Your task to perform on an android device: View the shopping cart on walmart. Add "logitech g502" to the cart on walmart, then select checkout. Image 0: 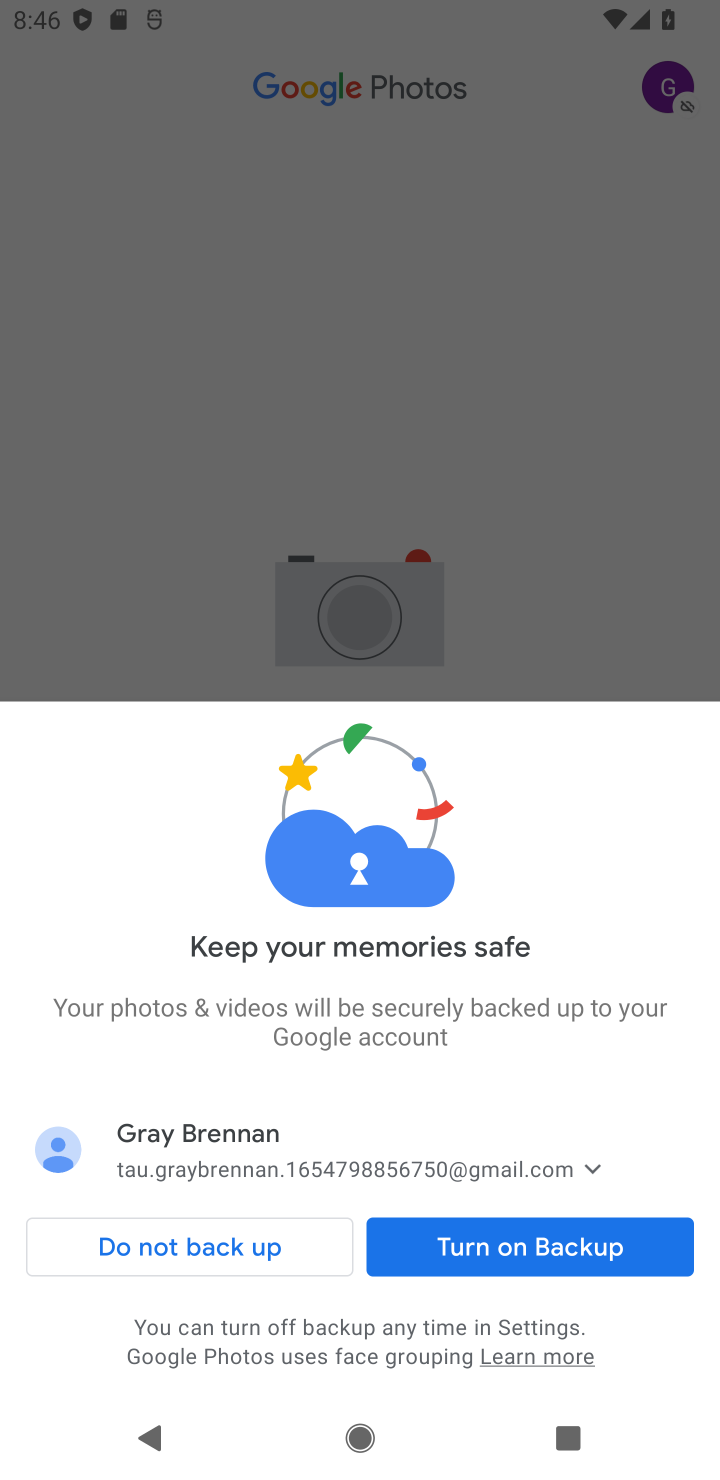
Step 0: press home button
Your task to perform on an android device: View the shopping cart on walmart. Add "logitech g502" to the cart on walmart, then select checkout. Image 1: 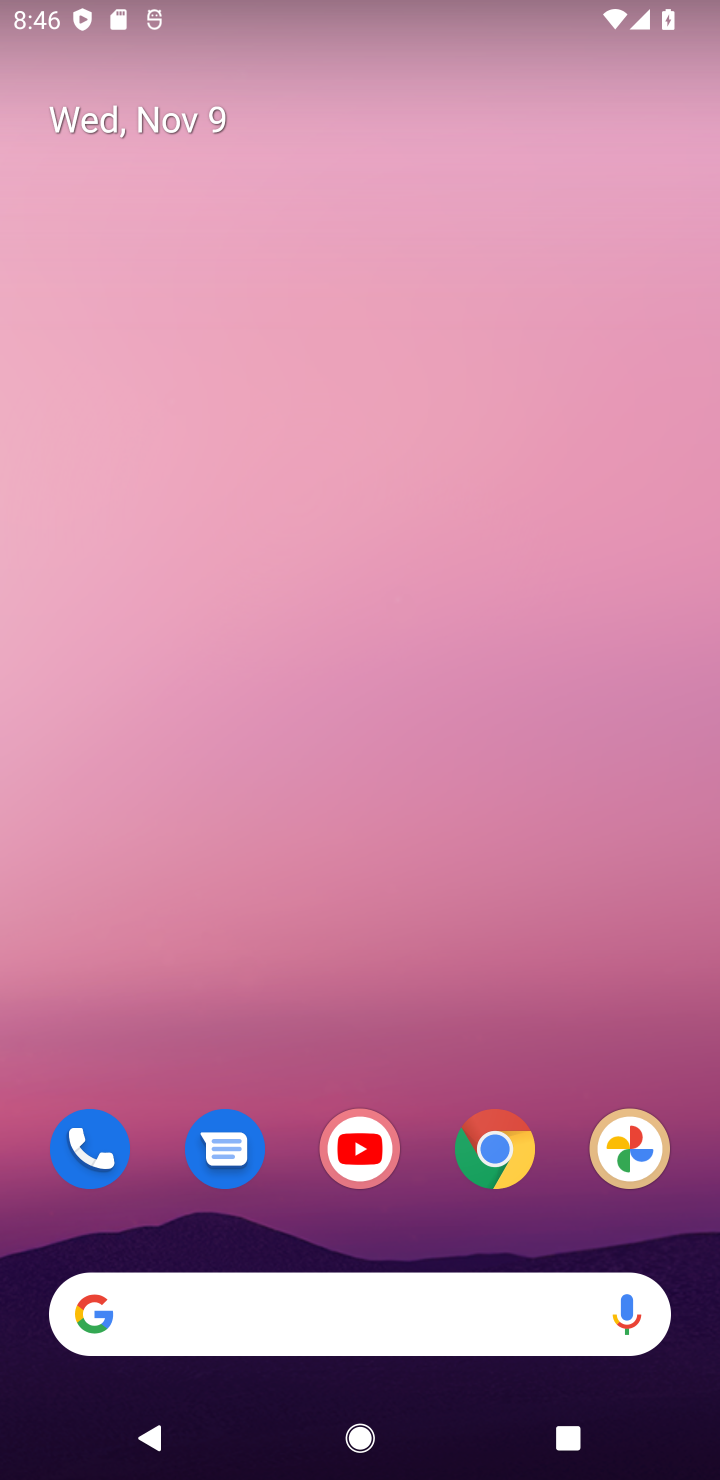
Step 1: click (490, 1163)
Your task to perform on an android device: View the shopping cart on walmart. Add "logitech g502" to the cart on walmart, then select checkout. Image 2: 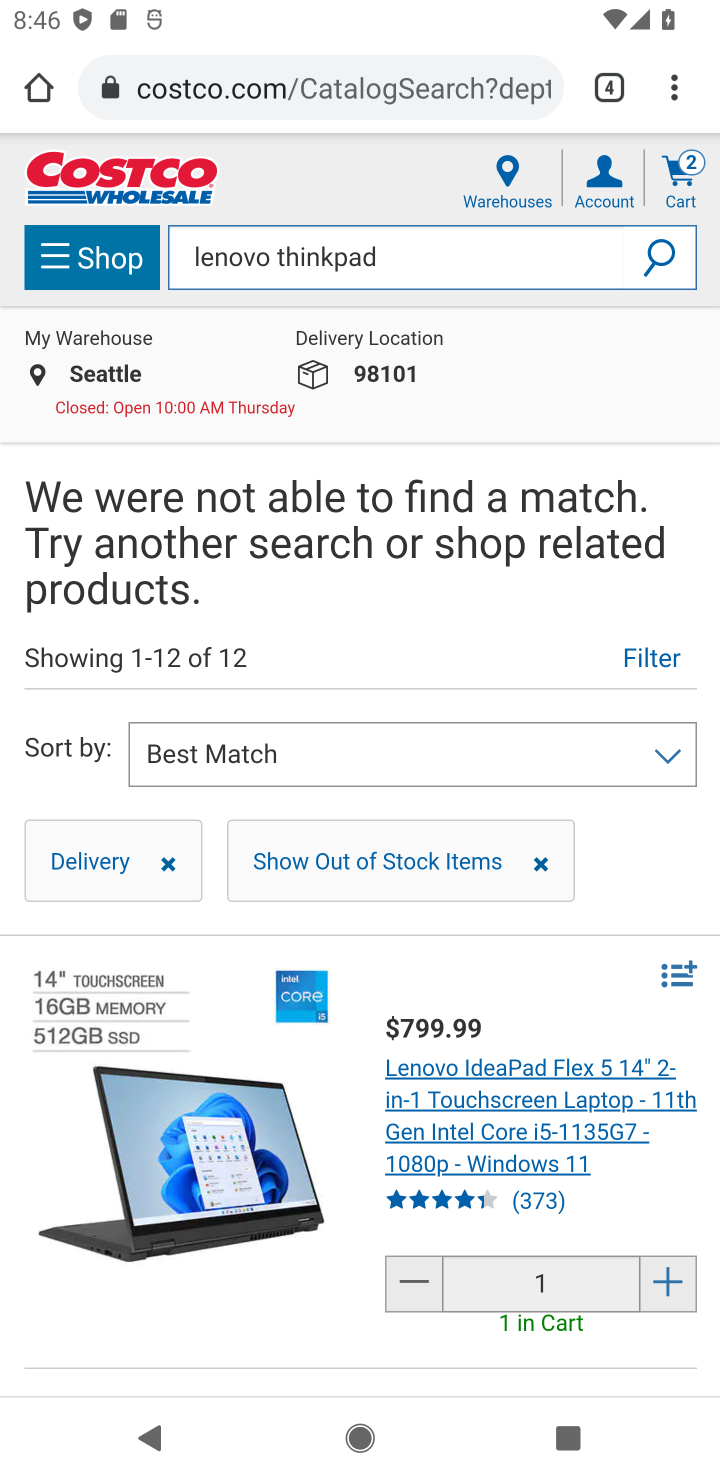
Step 2: click (619, 87)
Your task to perform on an android device: View the shopping cart on walmart. Add "logitech g502" to the cart on walmart, then select checkout. Image 3: 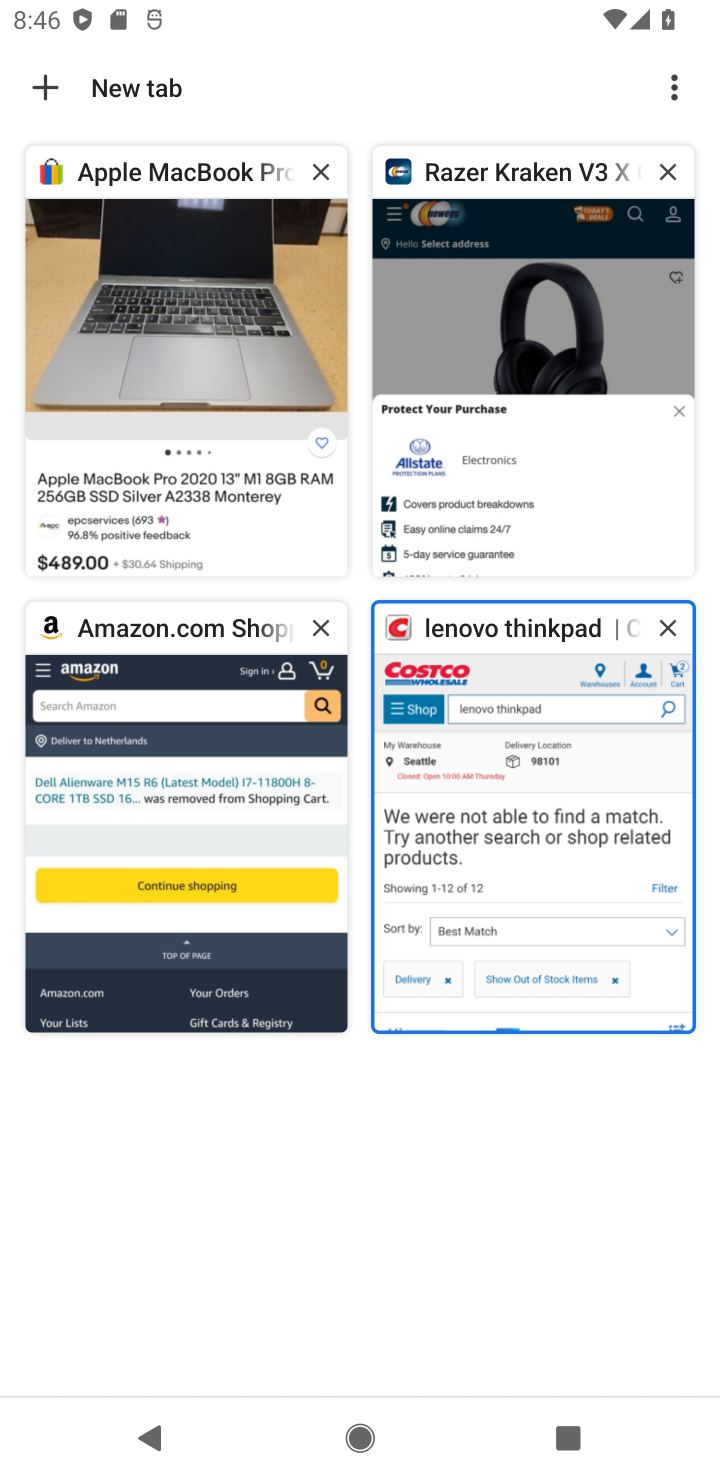
Step 3: click (37, 84)
Your task to perform on an android device: View the shopping cart on walmart. Add "logitech g502" to the cart on walmart, then select checkout. Image 4: 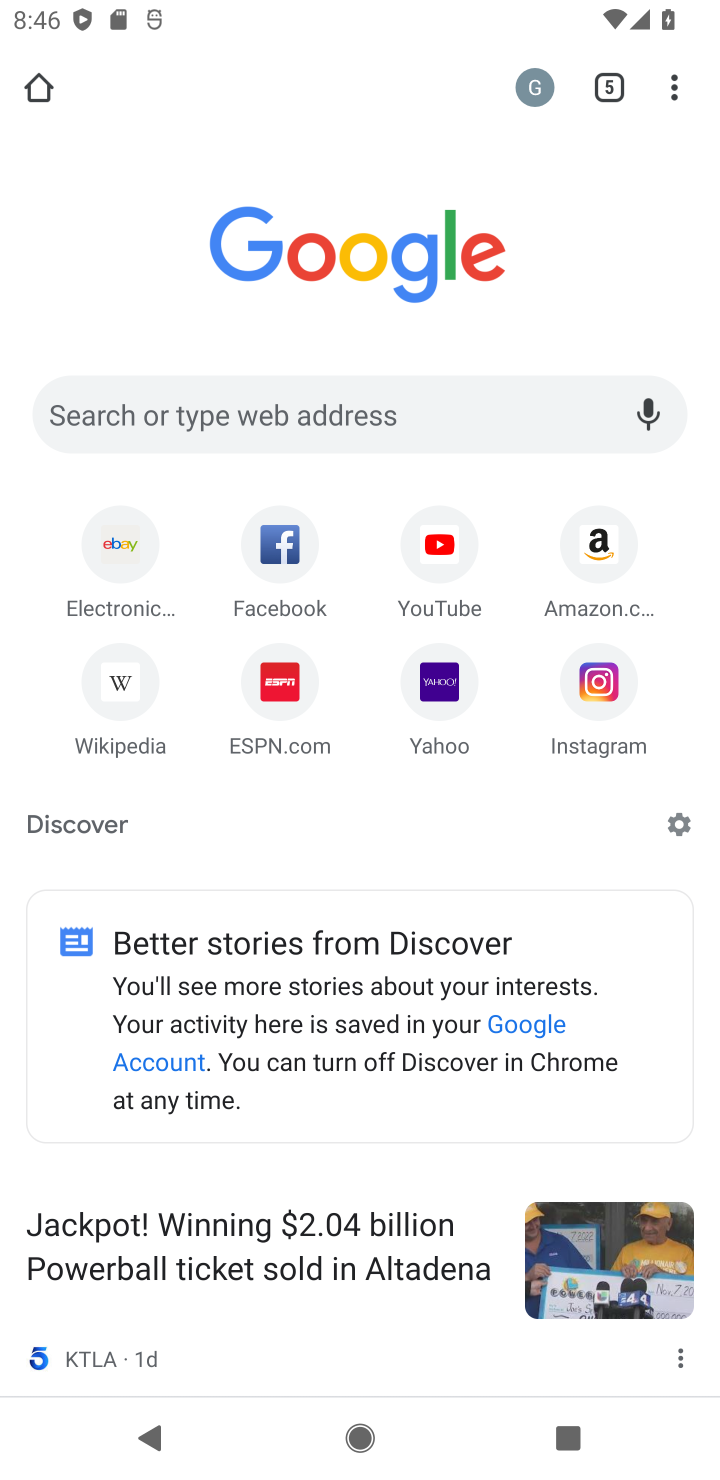
Step 4: click (286, 390)
Your task to perform on an android device: View the shopping cart on walmart. Add "logitech g502" to the cart on walmart, then select checkout. Image 5: 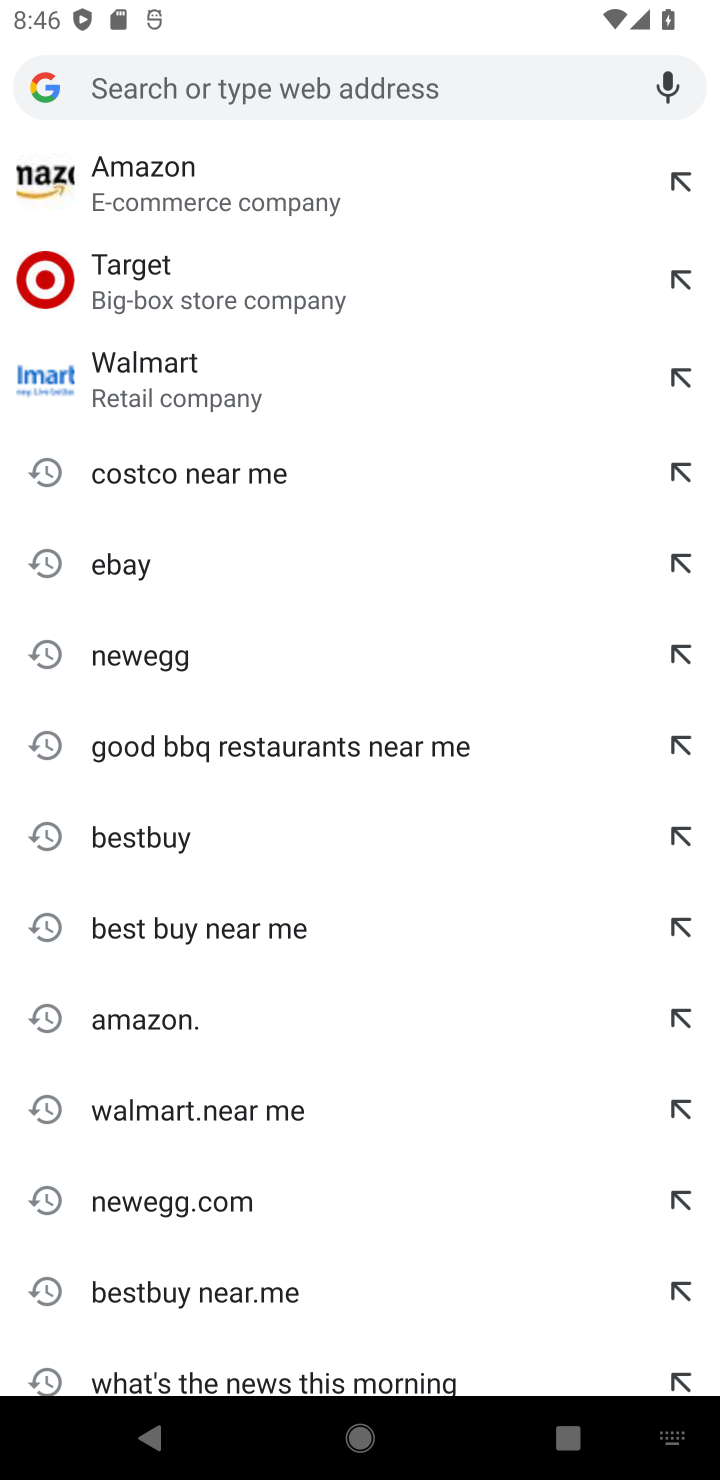
Step 5: click (182, 390)
Your task to perform on an android device: View the shopping cart on walmart. Add "logitech g502" to the cart on walmart, then select checkout. Image 6: 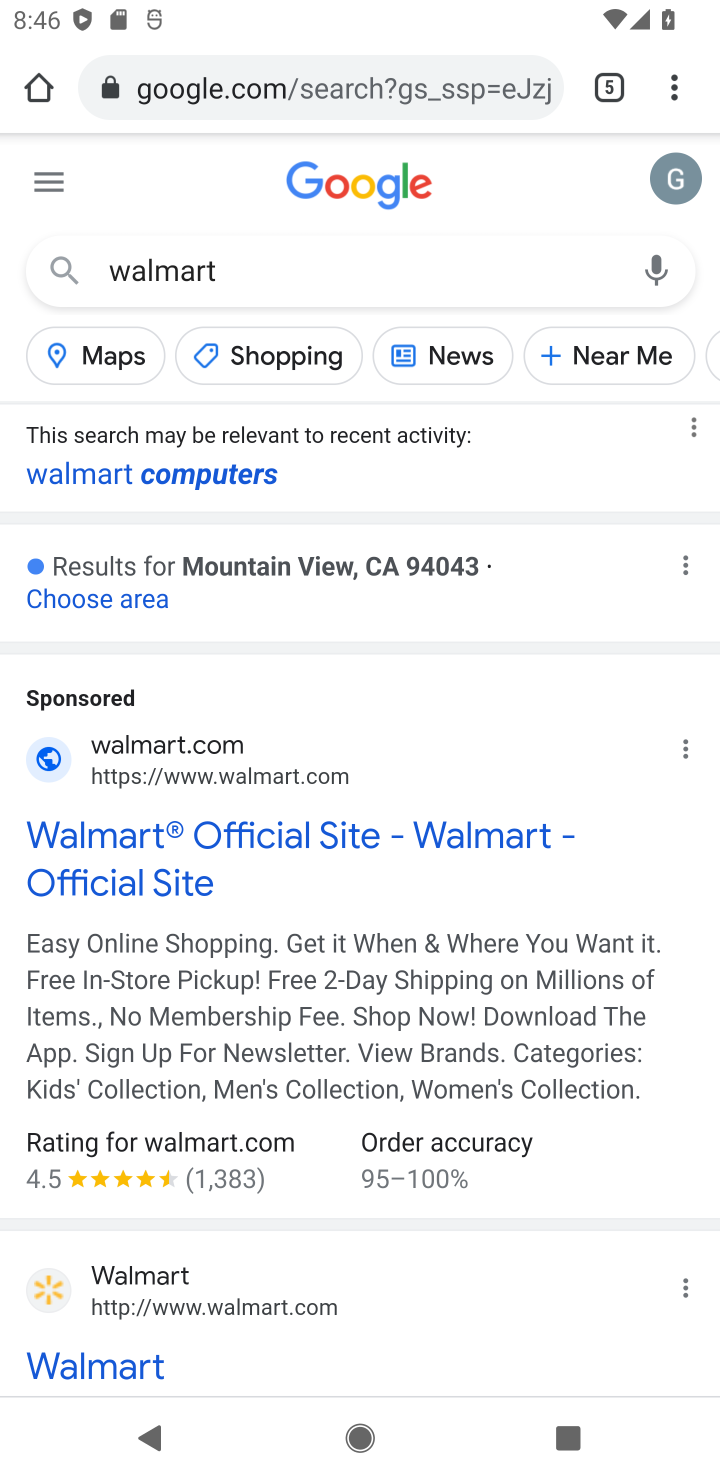
Step 6: click (51, 1362)
Your task to perform on an android device: View the shopping cart on walmart. Add "logitech g502" to the cart on walmart, then select checkout. Image 7: 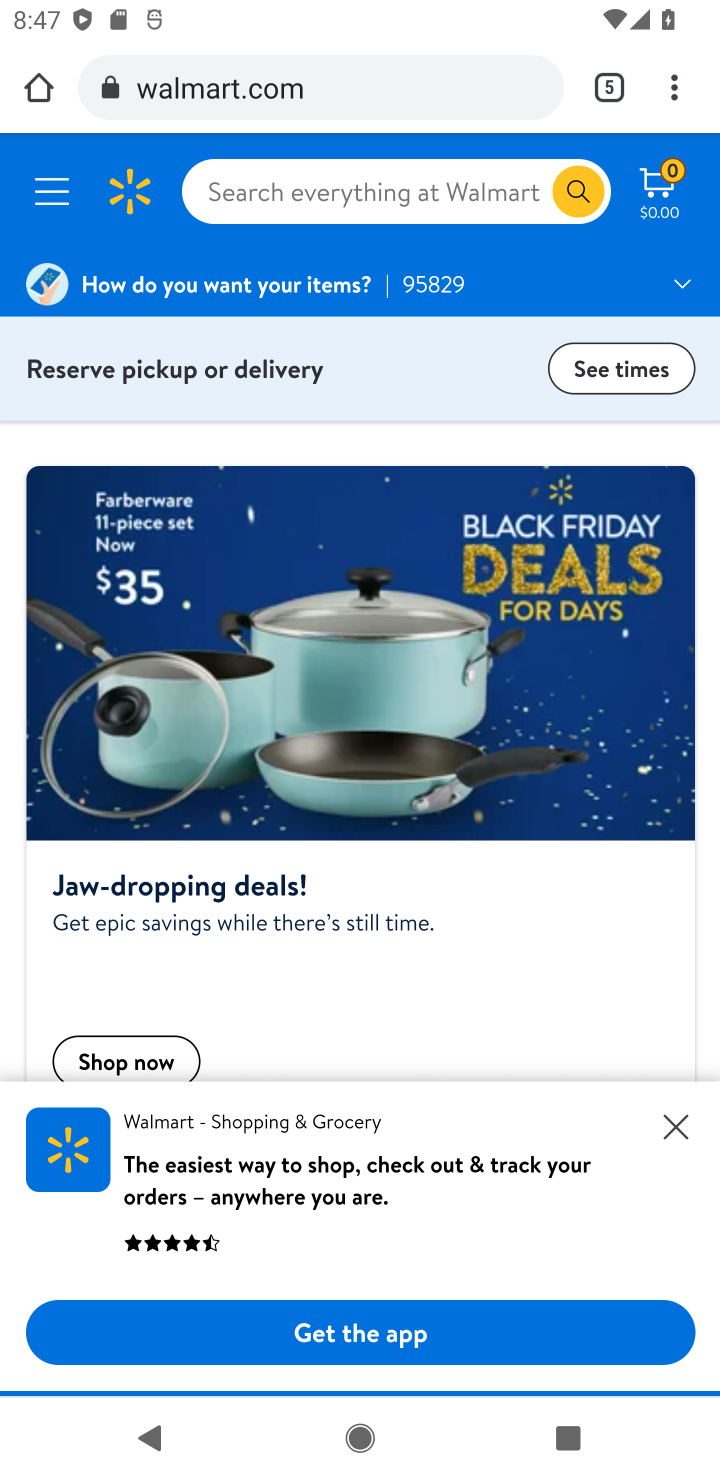
Step 7: click (401, 211)
Your task to perform on an android device: View the shopping cart on walmart. Add "logitech g502" to the cart on walmart, then select checkout. Image 8: 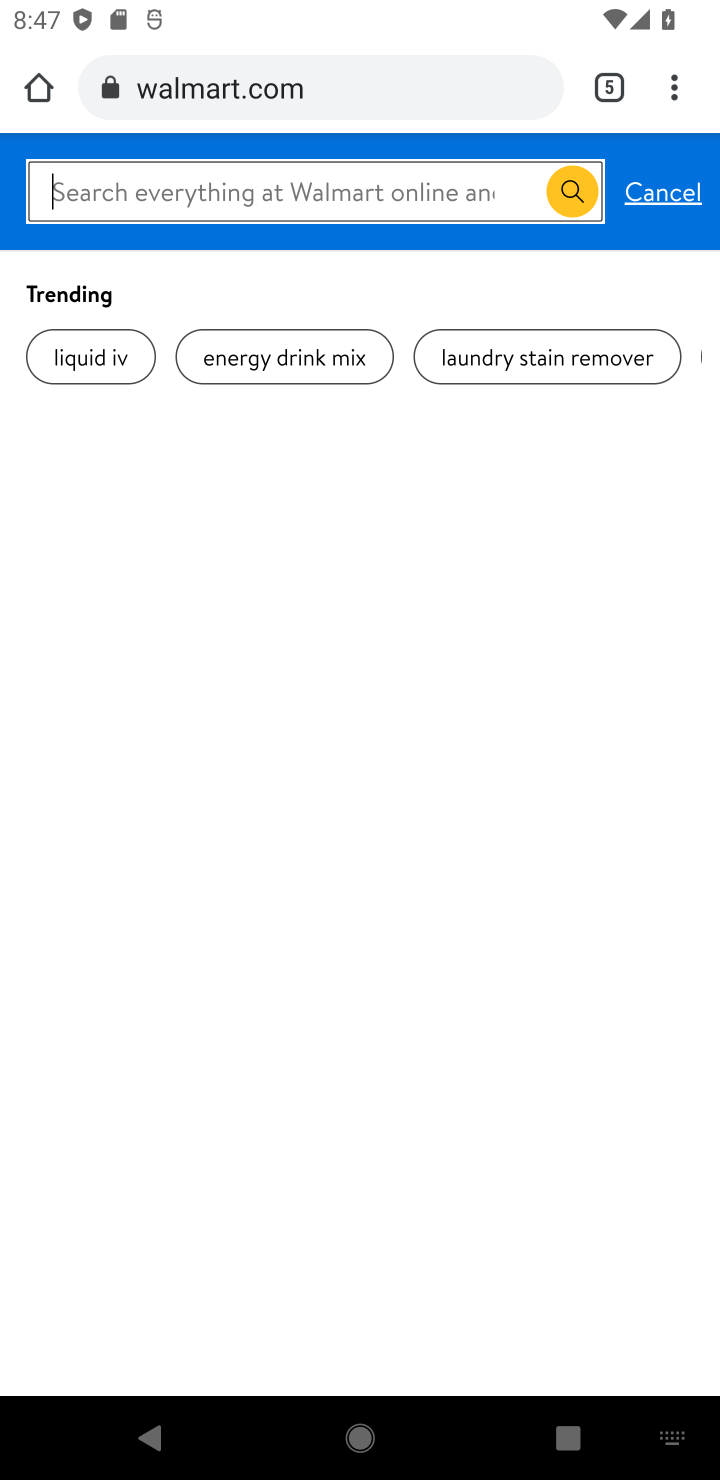
Step 8: type "logitech g502"
Your task to perform on an android device: View the shopping cart on walmart. Add "logitech g502" to the cart on walmart, then select checkout. Image 9: 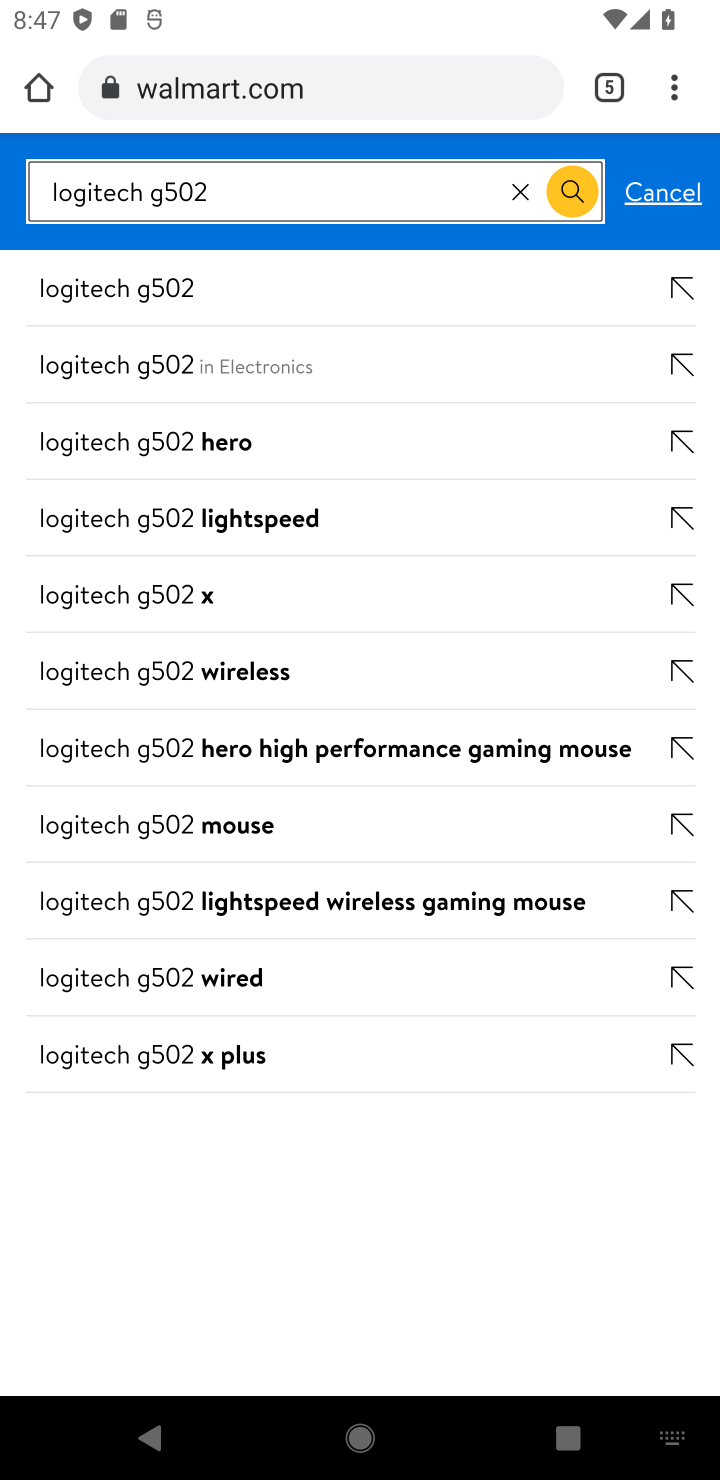
Step 9: click (128, 369)
Your task to perform on an android device: View the shopping cart on walmart. Add "logitech g502" to the cart on walmart, then select checkout. Image 10: 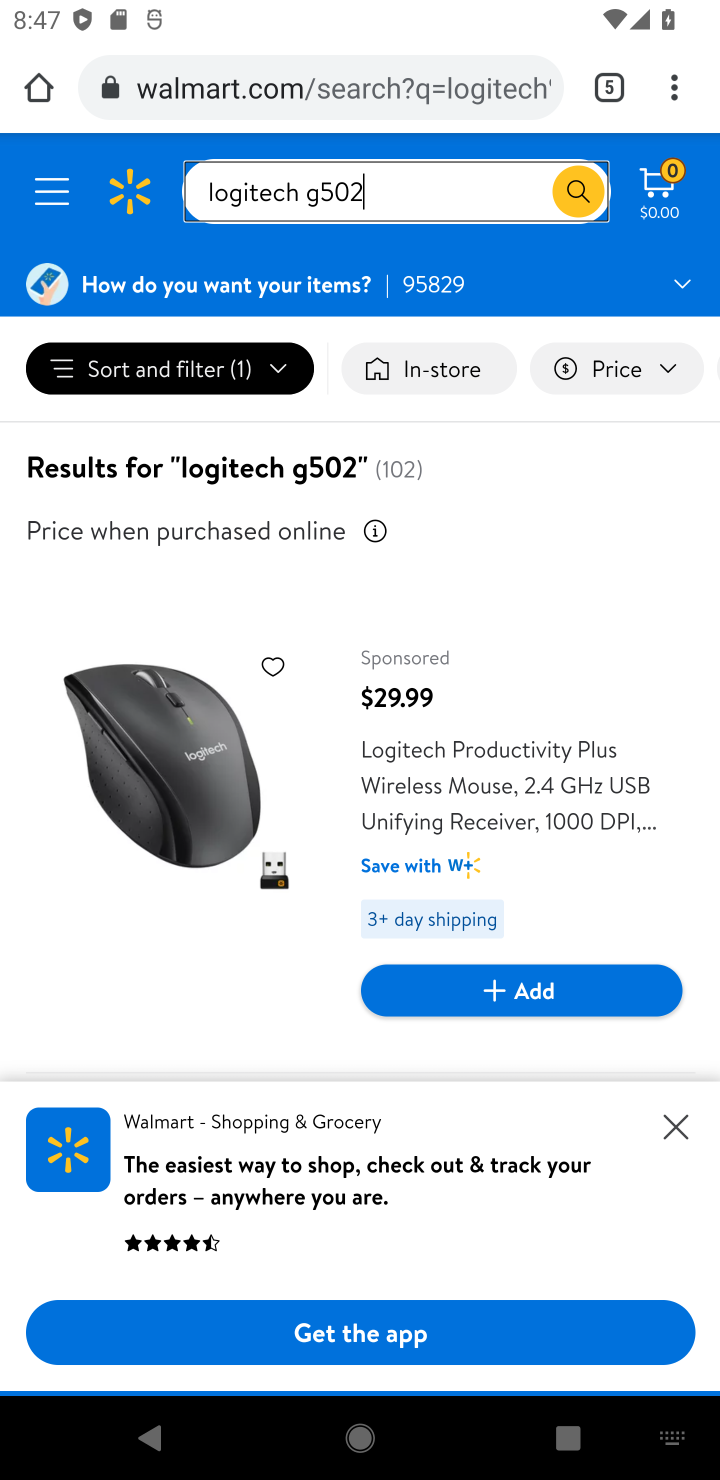
Step 10: click (688, 1118)
Your task to perform on an android device: View the shopping cart on walmart. Add "logitech g502" to the cart on walmart, then select checkout. Image 11: 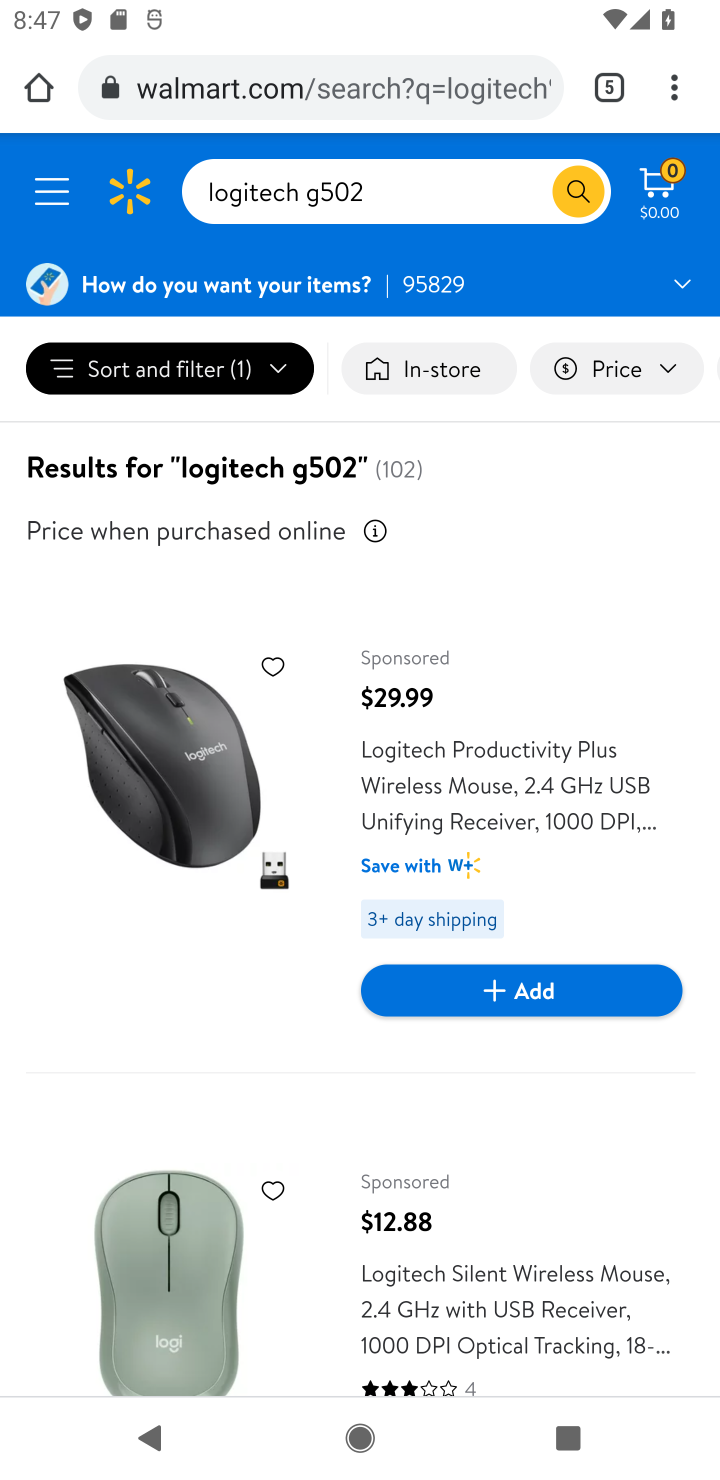
Step 11: drag from (588, 1173) to (514, 570)
Your task to perform on an android device: View the shopping cart on walmart. Add "logitech g502" to the cart on walmart, then select checkout. Image 12: 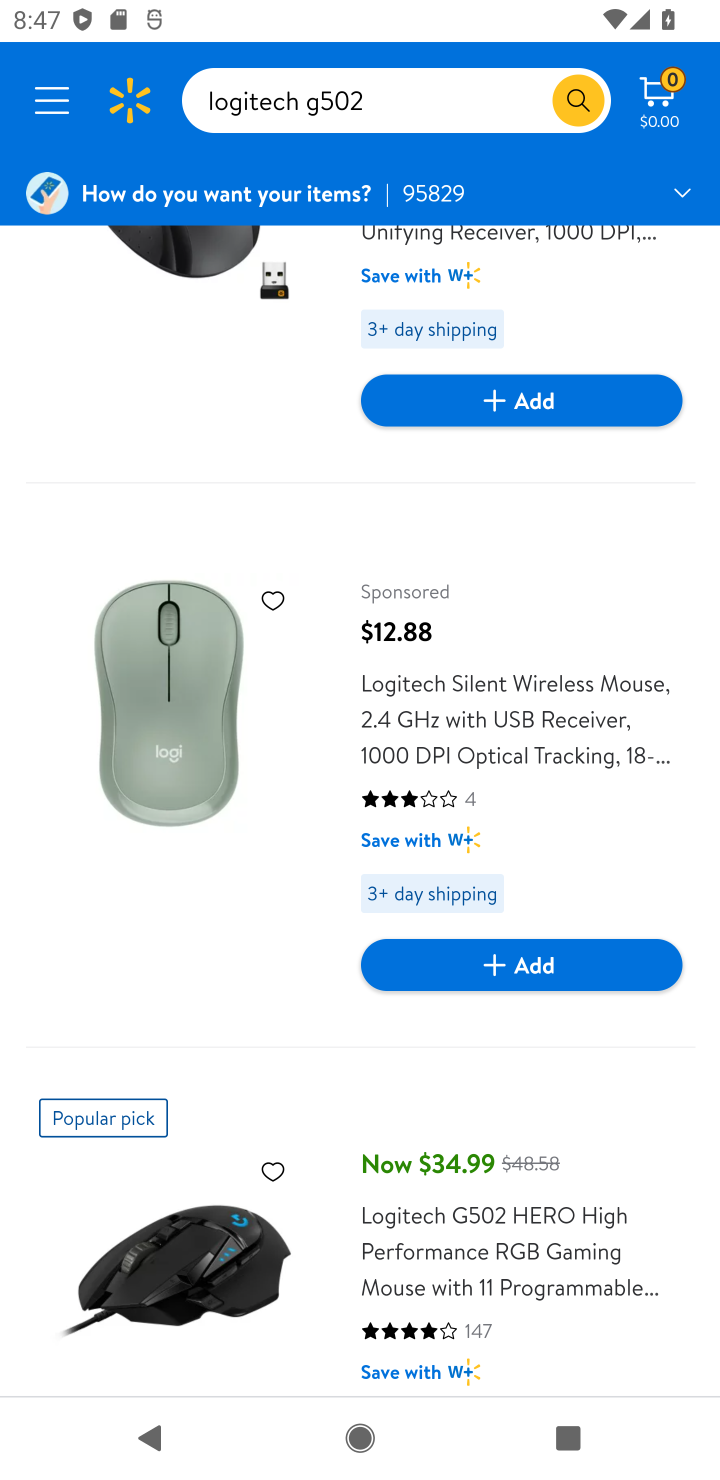
Step 12: drag from (590, 1134) to (494, 593)
Your task to perform on an android device: View the shopping cart on walmart. Add "logitech g502" to the cart on walmart, then select checkout. Image 13: 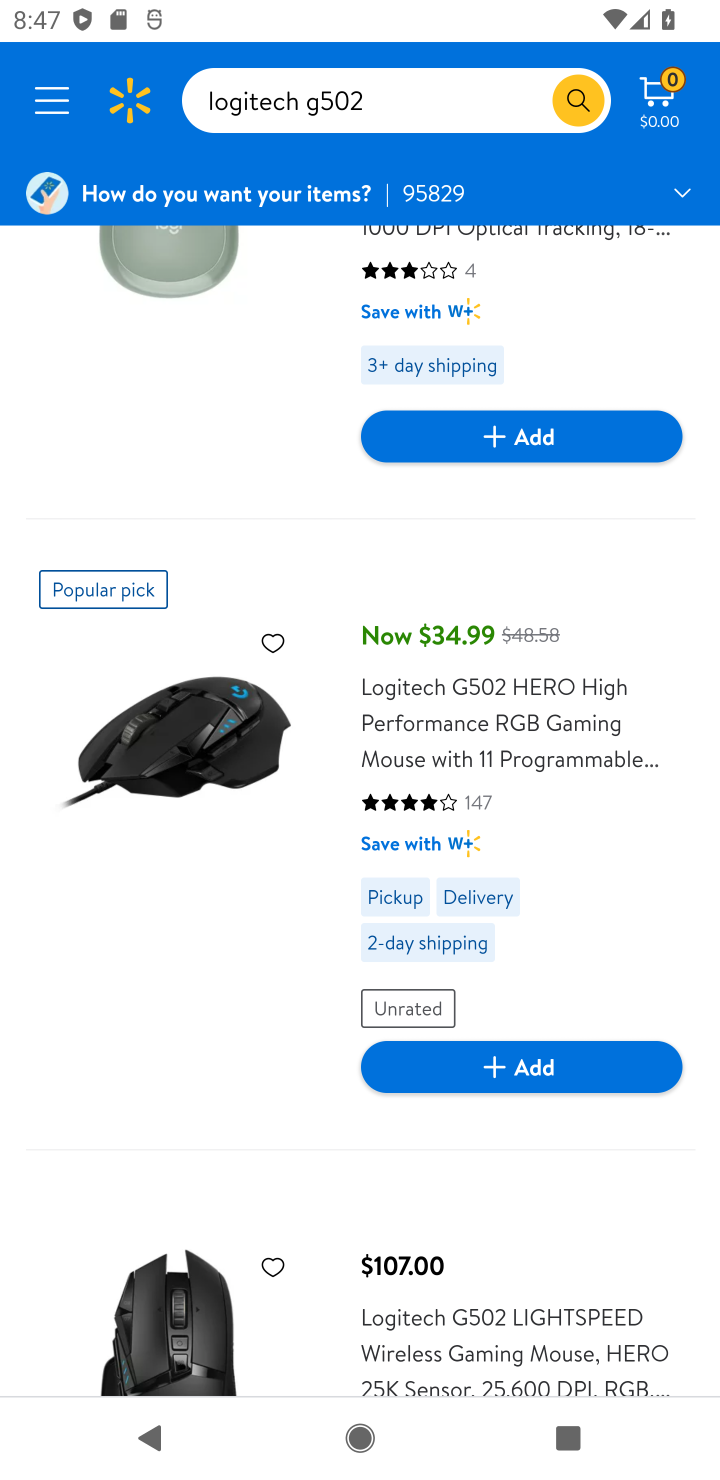
Step 13: click (565, 1068)
Your task to perform on an android device: View the shopping cart on walmart. Add "logitech g502" to the cart on walmart, then select checkout. Image 14: 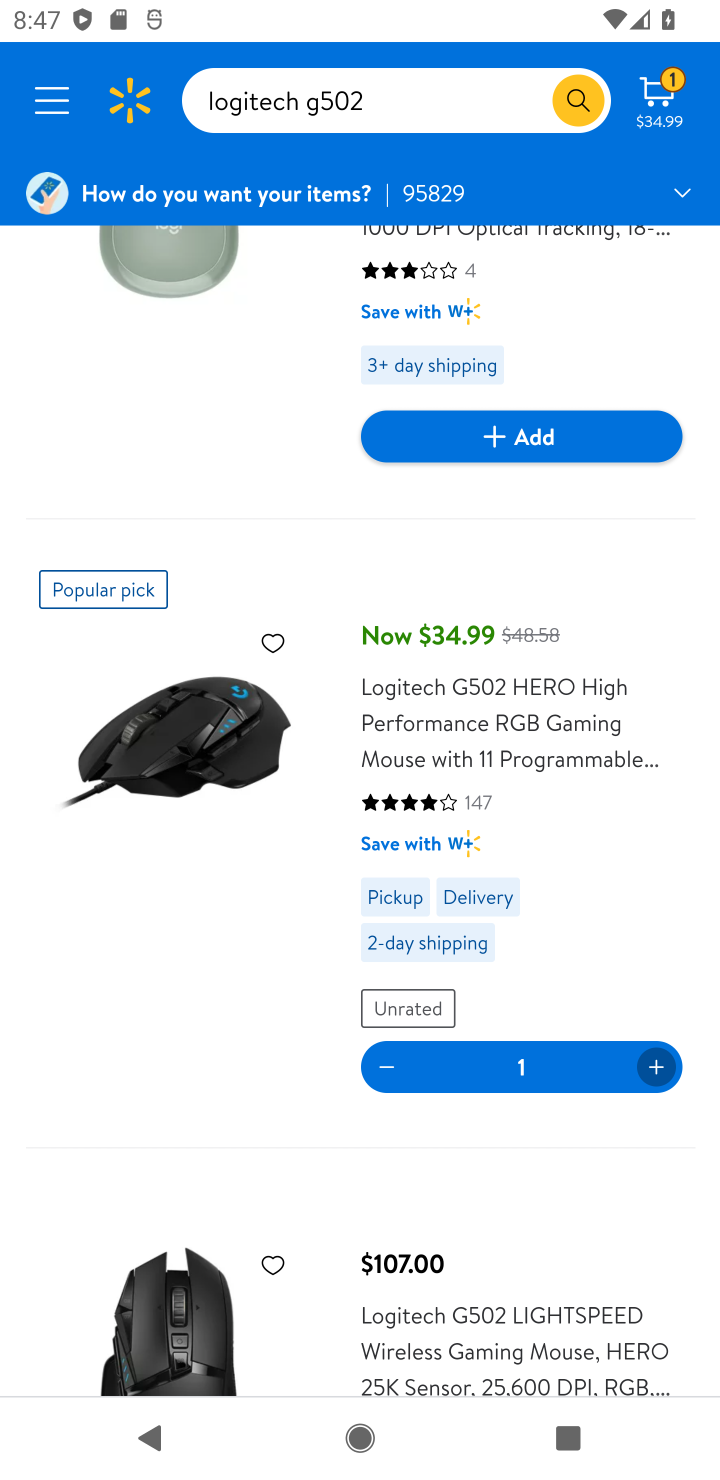
Step 14: click (663, 95)
Your task to perform on an android device: View the shopping cart on walmart. Add "logitech g502" to the cart on walmart, then select checkout. Image 15: 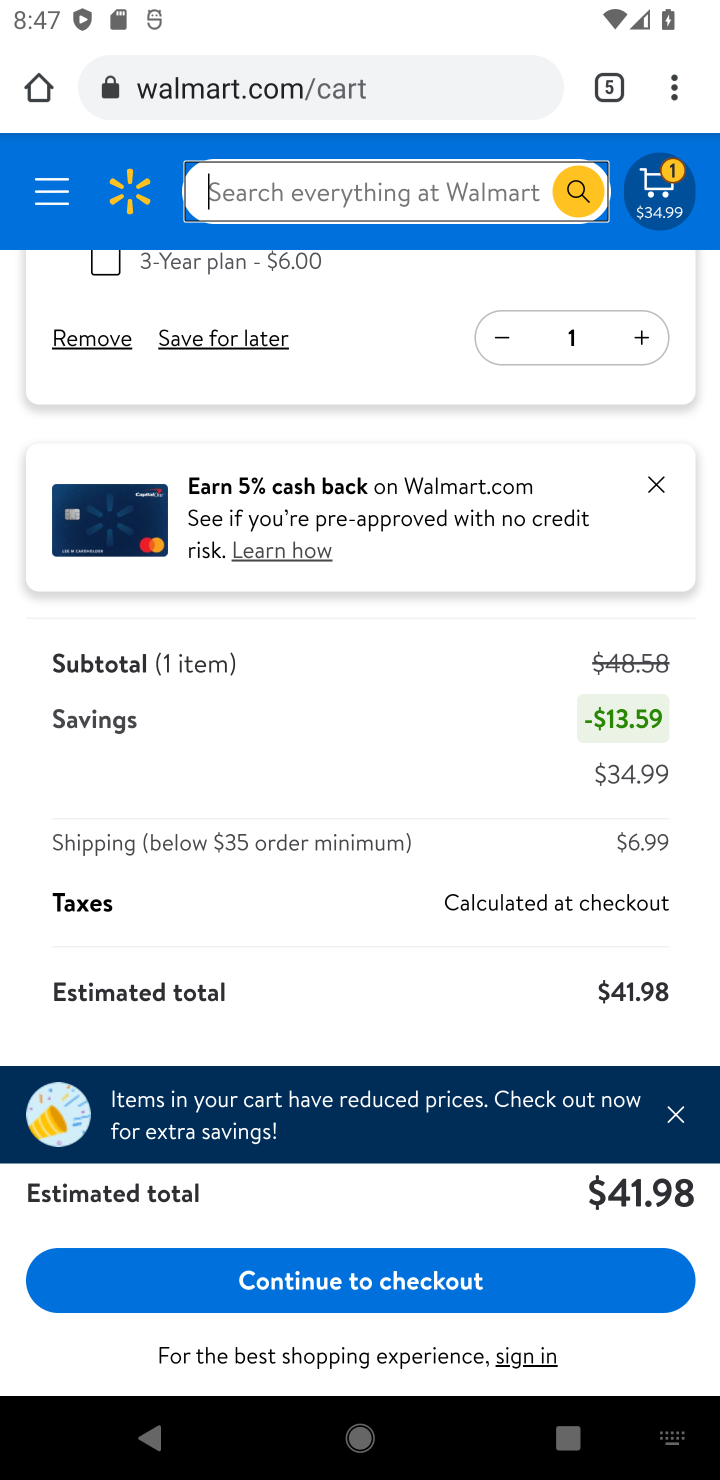
Step 15: click (359, 1281)
Your task to perform on an android device: View the shopping cart on walmart. Add "logitech g502" to the cart on walmart, then select checkout. Image 16: 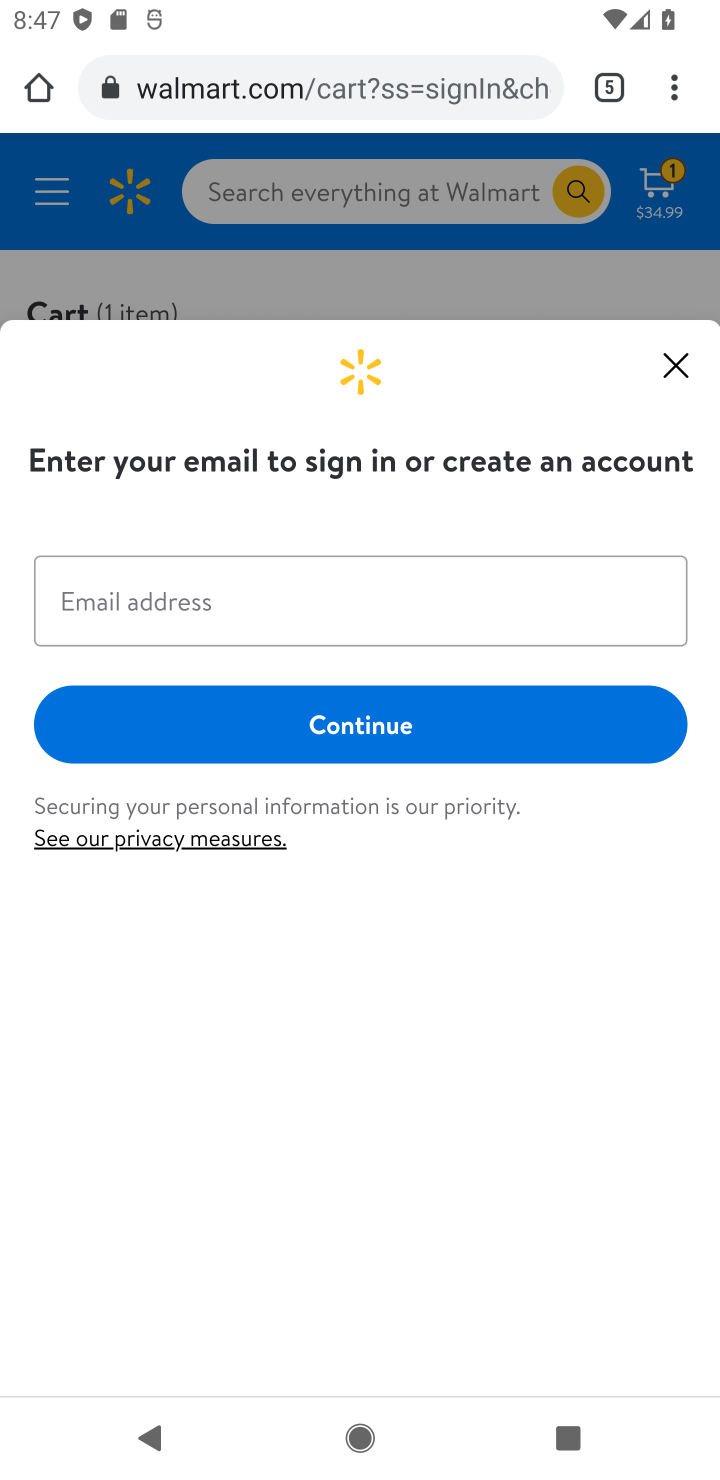
Step 16: task complete